Your task to perform on an android device: Open Google Chrome Image 0: 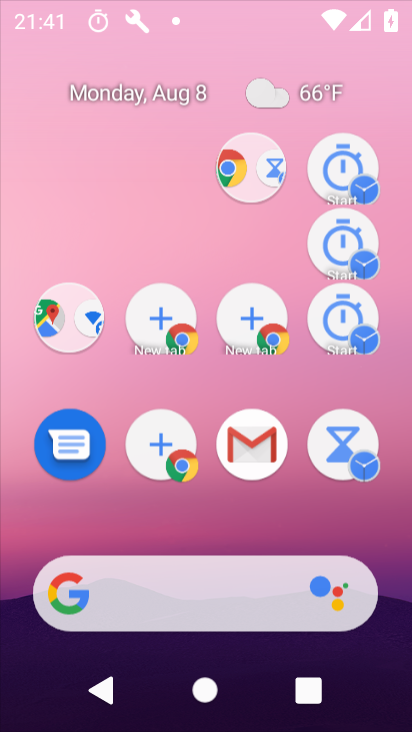
Step 0: drag from (281, 647) to (205, 139)
Your task to perform on an android device: Open Google Chrome Image 1: 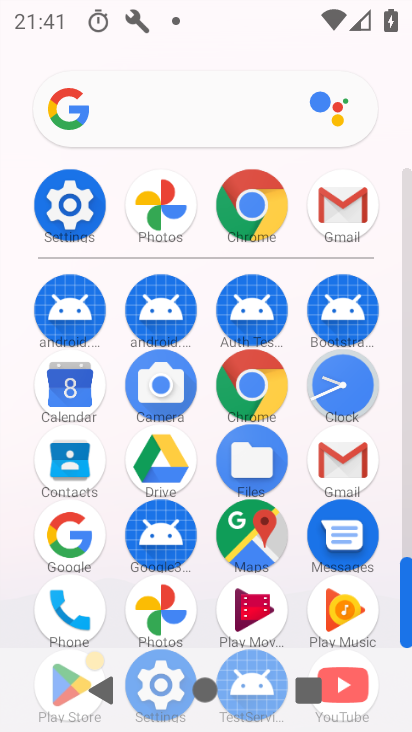
Step 1: click (245, 208)
Your task to perform on an android device: Open Google Chrome Image 2: 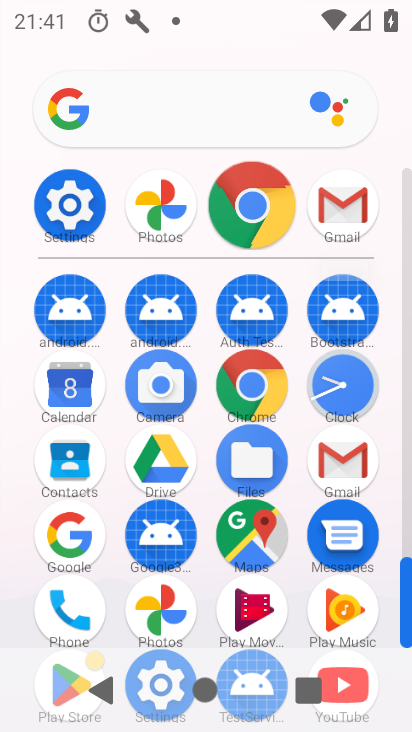
Step 2: click (250, 209)
Your task to perform on an android device: Open Google Chrome Image 3: 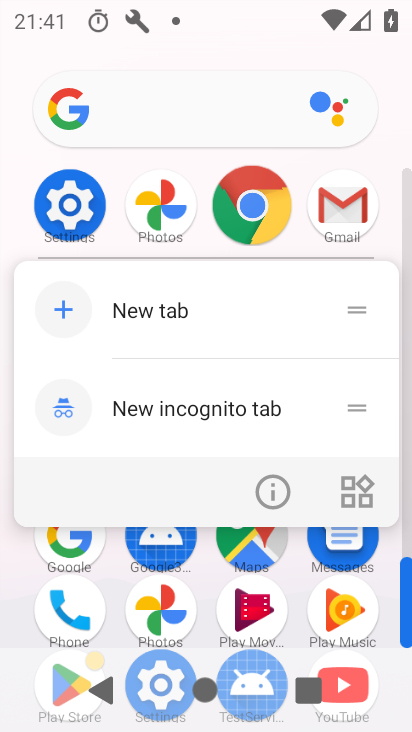
Step 3: click (251, 209)
Your task to perform on an android device: Open Google Chrome Image 4: 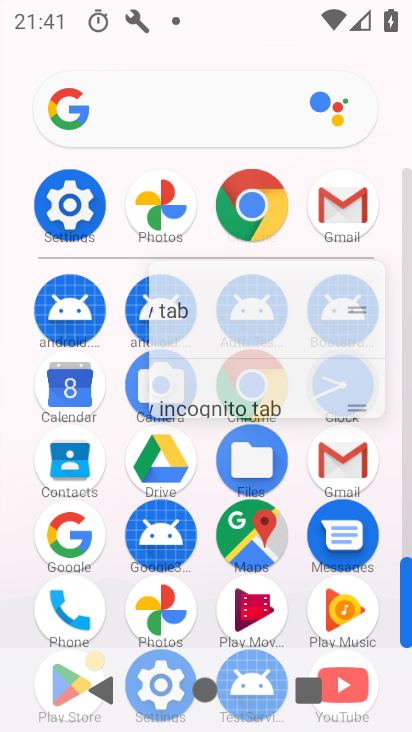
Step 4: click (254, 211)
Your task to perform on an android device: Open Google Chrome Image 5: 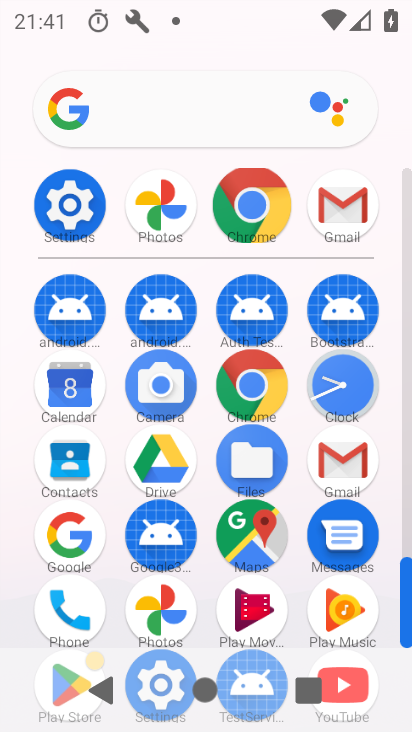
Step 5: click (257, 211)
Your task to perform on an android device: Open Google Chrome Image 6: 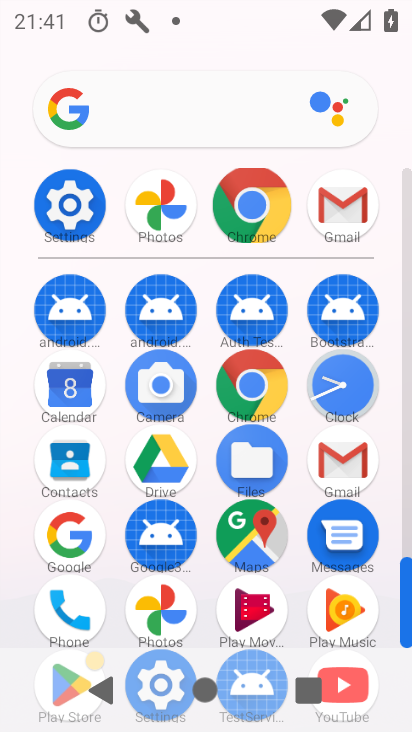
Step 6: click (257, 211)
Your task to perform on an android device: Open Google Chrome Image 7: 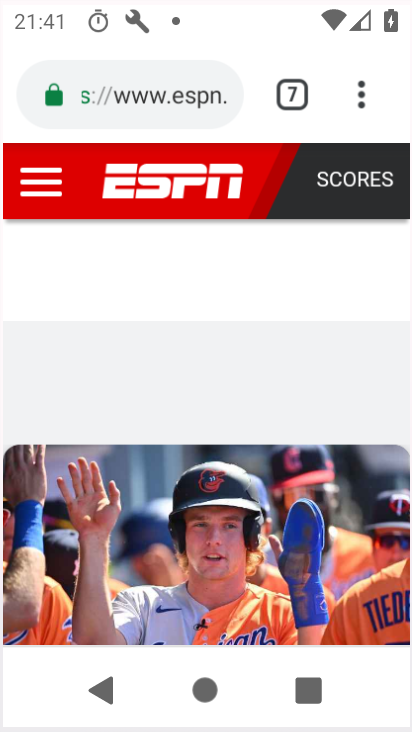
Step 7: click (257, 211)
Your task to perform on an android device: Open Google Chrome Image 8: 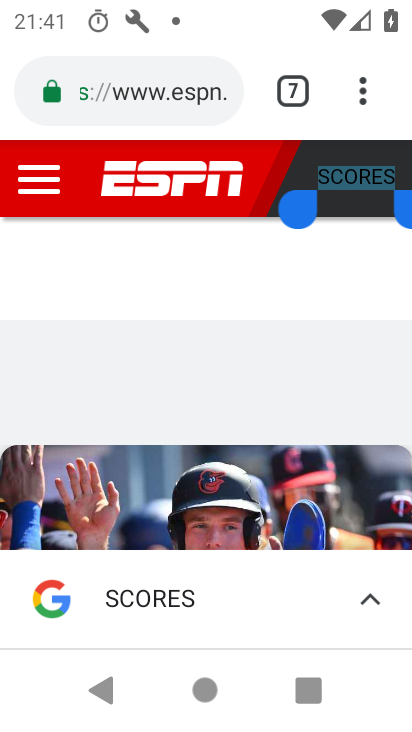
Step 8: drag from (359, 95) to (116, 164)
Your task to perform on an android device: Open Google Chrome Image 9: 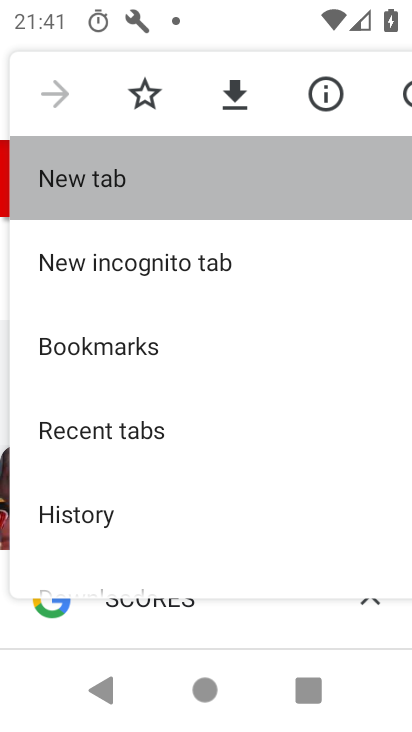
Step 9: click (119, 170)
Your task to perform on an android device: Open Google Chrome Image 10: 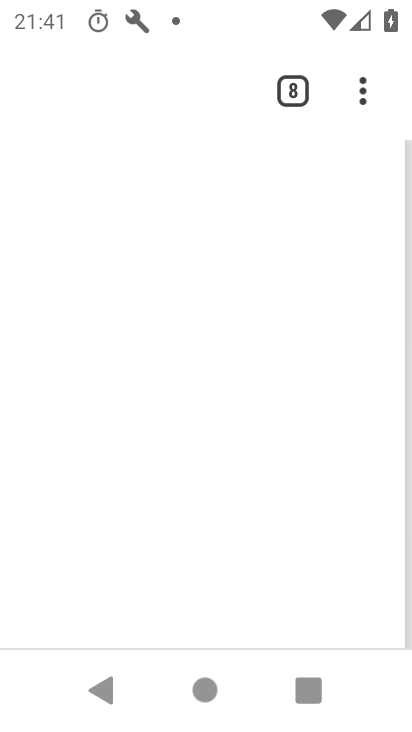
Step 10: click (120, 173)
Your task to perform on an android device: Open Google Chrome Image 11: 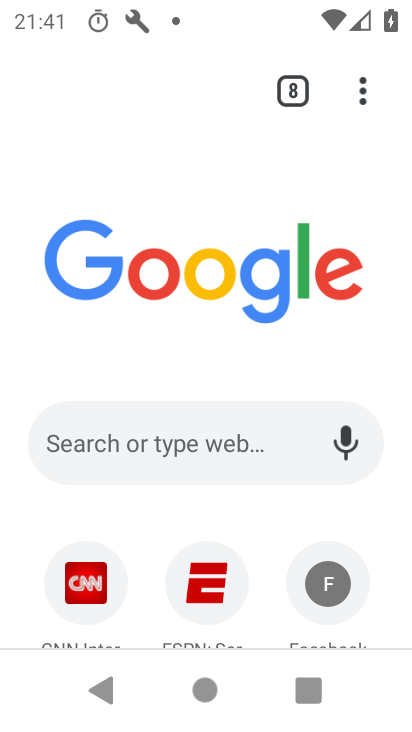
Step 11: task complete